Your task to perform on an android device: set an alarm Image 0: 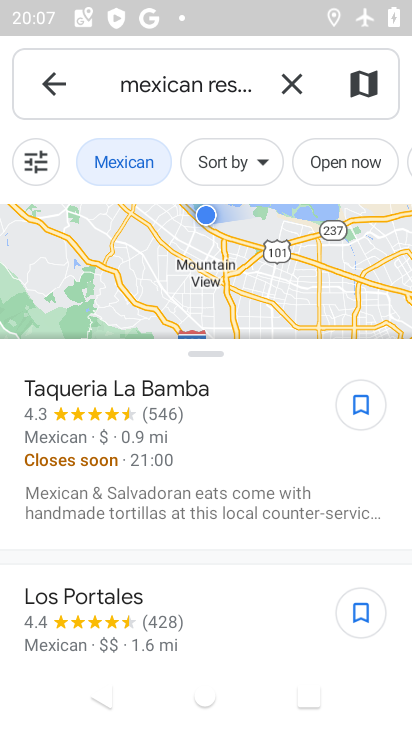
Step 0: press home button
Your task to perform on an android device: set an alarm Image 1: 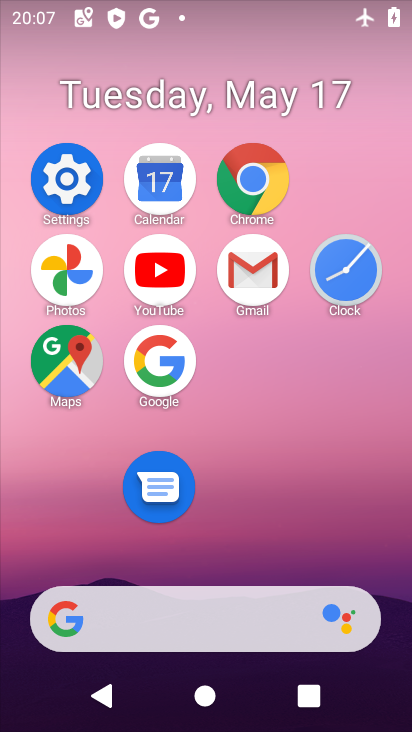
Step 1: click (368, 280)
Your task to perform on an android device: set an alarm Image 2: 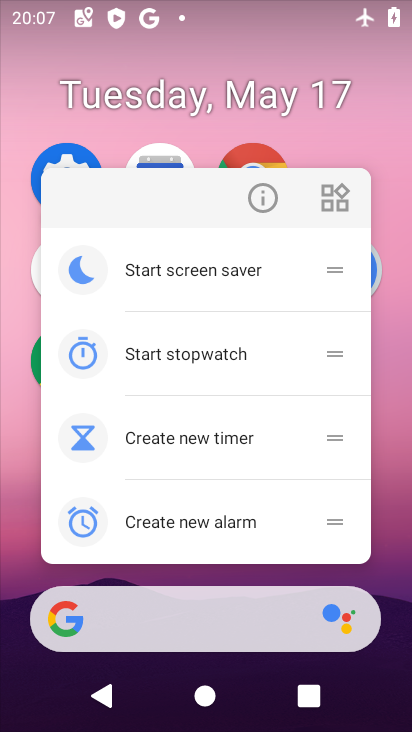
Step 2: click (375, 270)
Your task to perform on an android device: set an alarm Image 3: 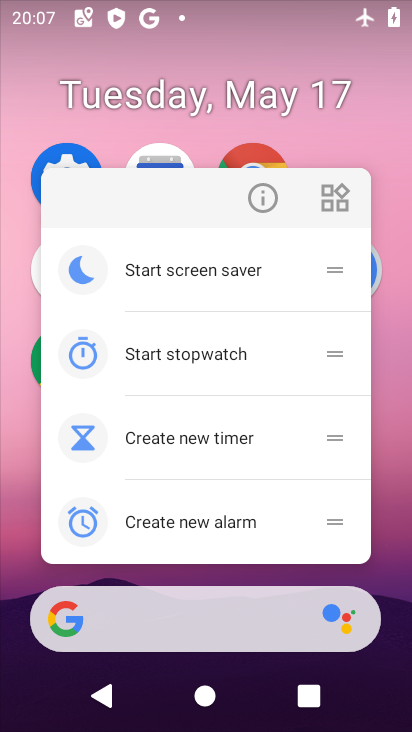
Step 3: click (196, 516)
Your task to perform on an android device: set an alarm Image 4: 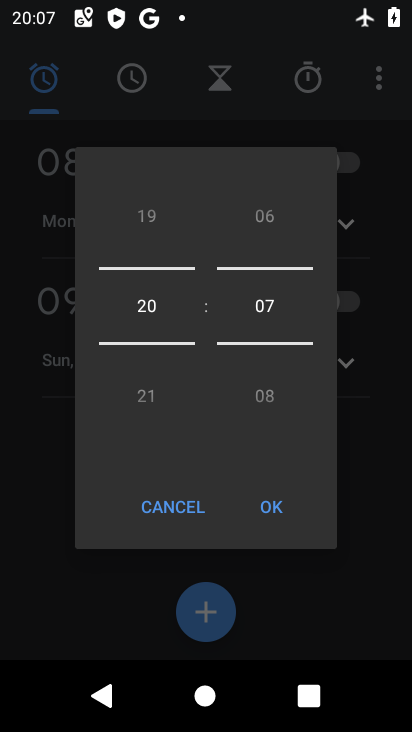
Step 4: click (265, 501)
Your task to perform on an android device: set an alarm Image 5: 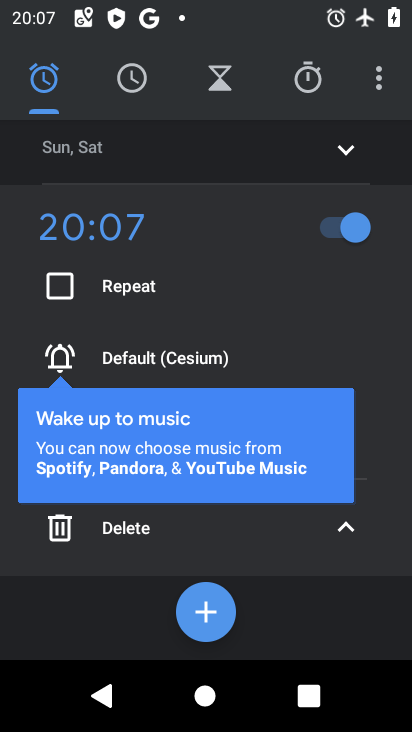
Step 5: click (178, 306)
Your task to perform on an android device: set an alarm Image 6: 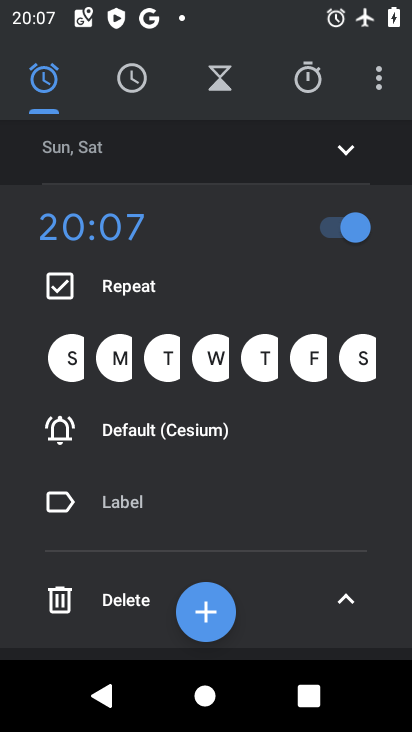
Step 6: drag from (252, 571) to (295, 250)
Your task to perform on an android device: set an alarm Image 7: 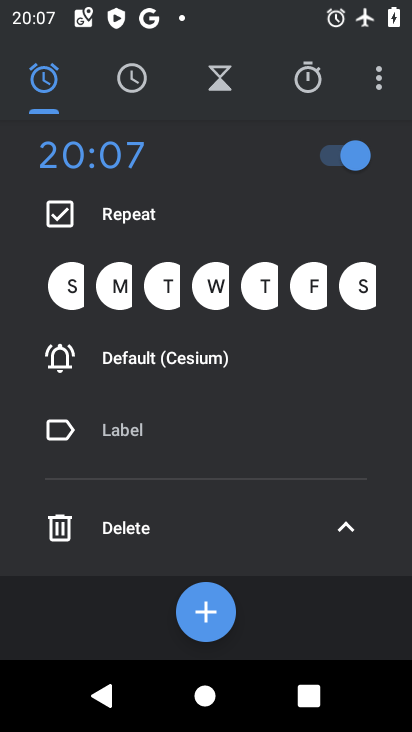
Step 7: click (316, 612)
Your task to perform on an android device: set an alarm Image 8: 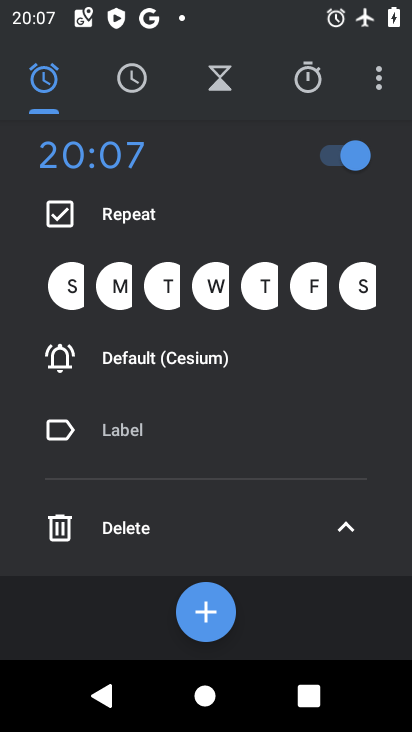
Step 8: task complete